Your task to perform on an android device: change your default location settings in chrome Image 0: 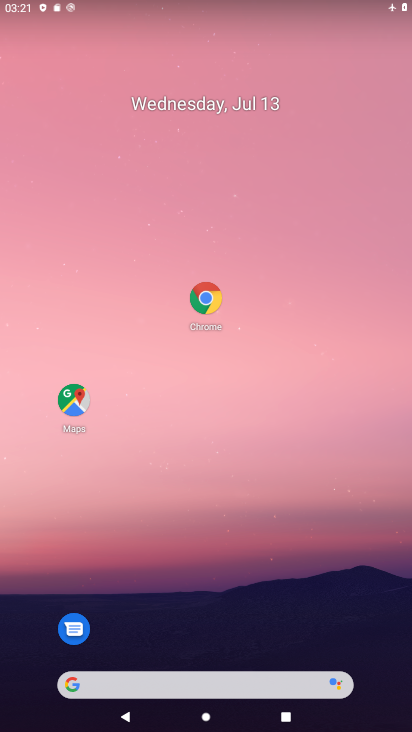
Step 0: drag from (225, 618) to (307, 149)
Your task to perform on an android device: change your default location settings in chrome Image 1: 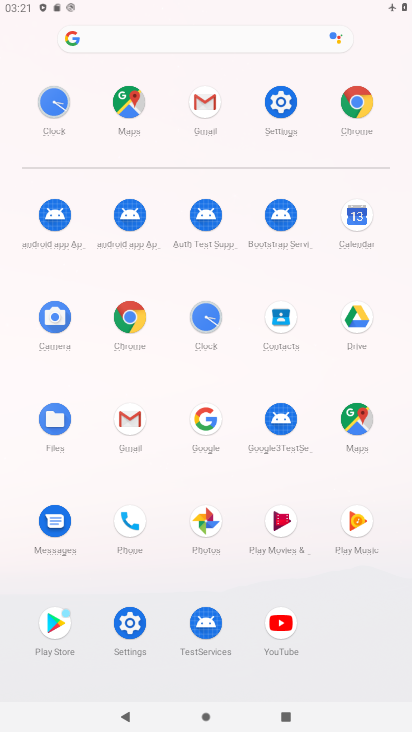
Step 1: click (132, 328)
Your task to perform on an android device: change your default location settings in chrome Image 2: 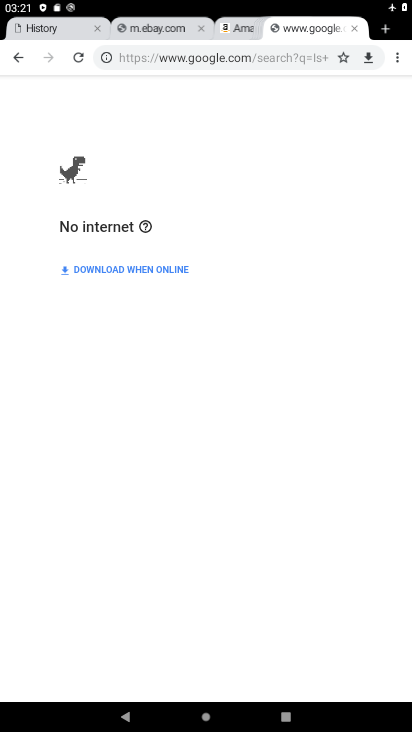
Step 2: click (394, 54)
Your task to perform on an android device: change your default location settings in chrome Image 3: 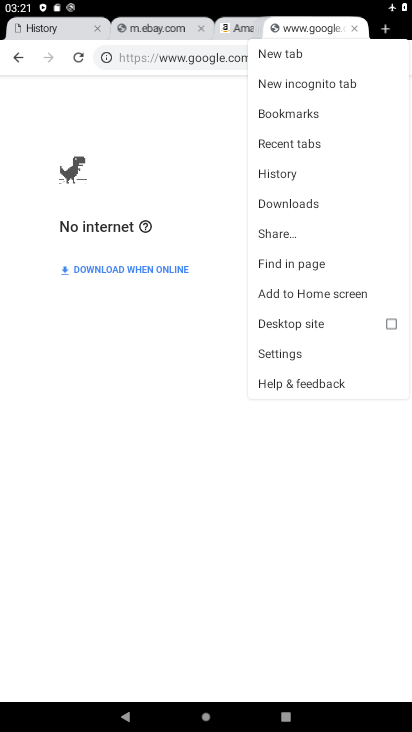
Step 3: click (272, 347)
Your task to perform on an android device: change your default location settings in chrome Image 4: 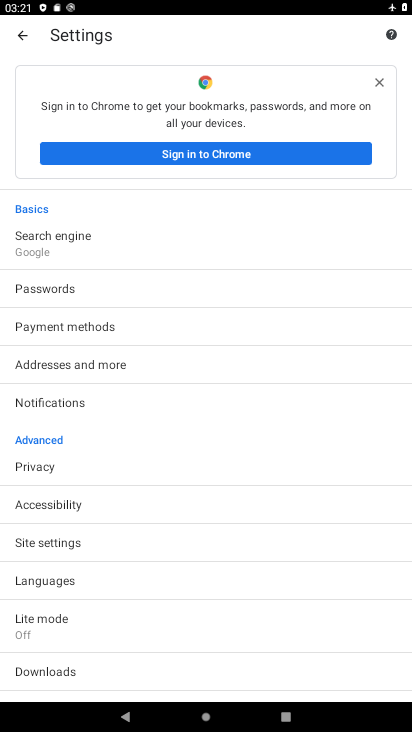
Step 4: click (60, 545)
Your task to perform on an android device: change your default location settings in chrome Image 5: 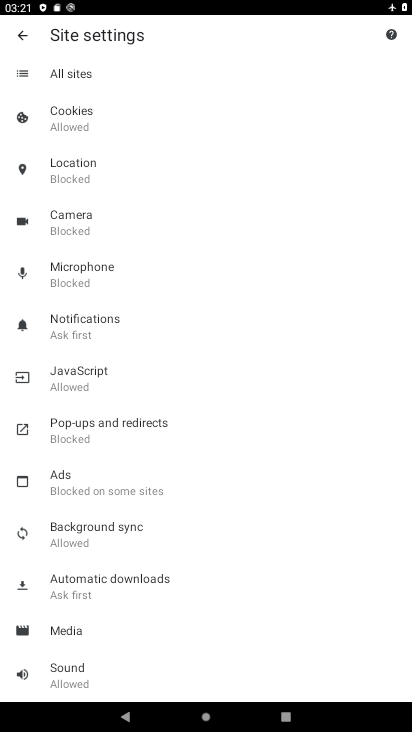
Step 5: click (76, 164)
Your task to perform on an android device: change your default location settings in chrome Image 6: 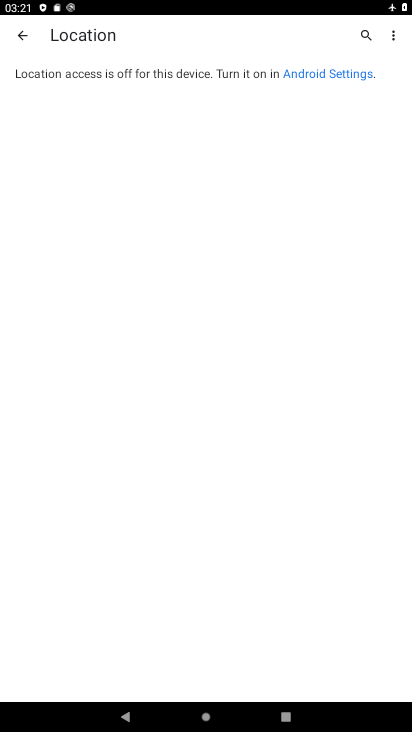
Step 6: task complete